Your task to perform on an android device: set the timer Image 0: 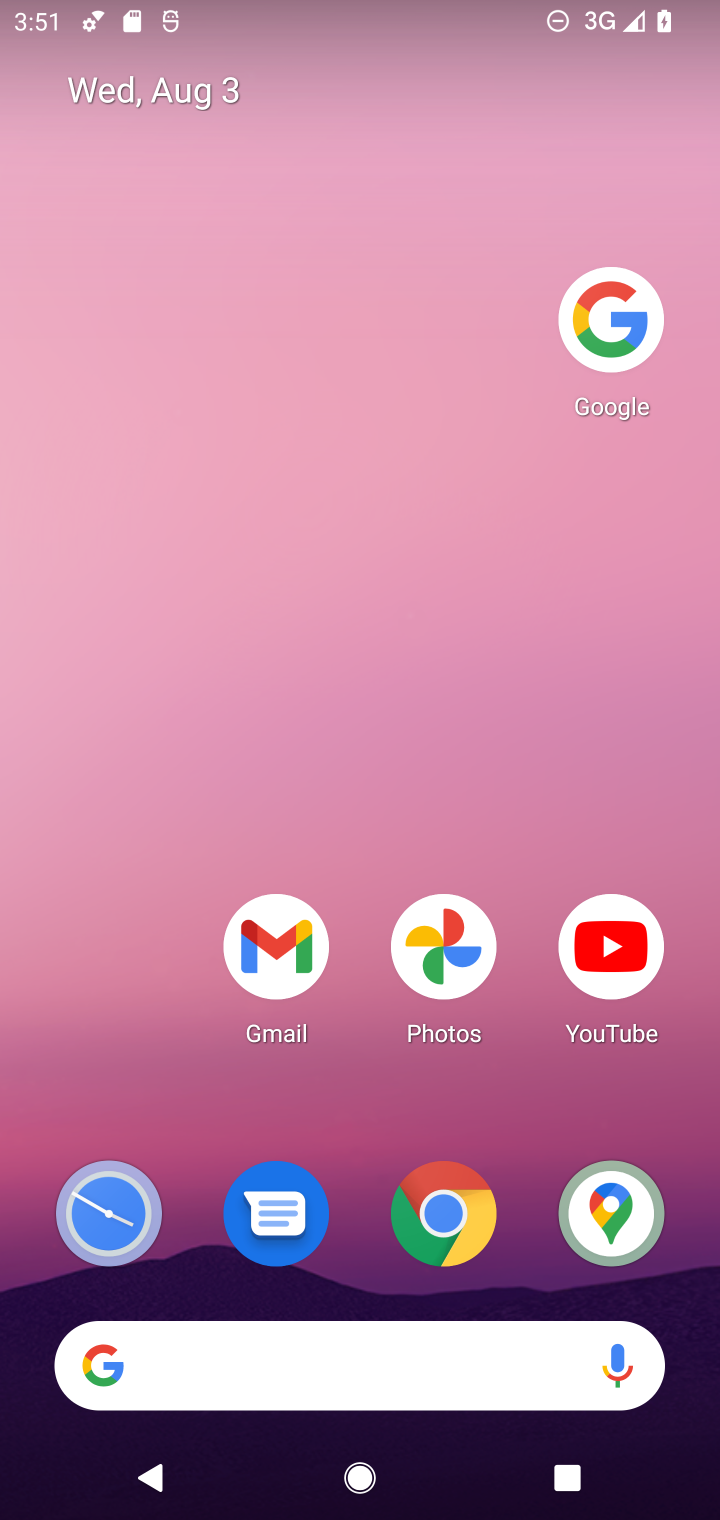
Step 0: click (118, 1220)
Your task to perform on an android device: set the timer Image 1: 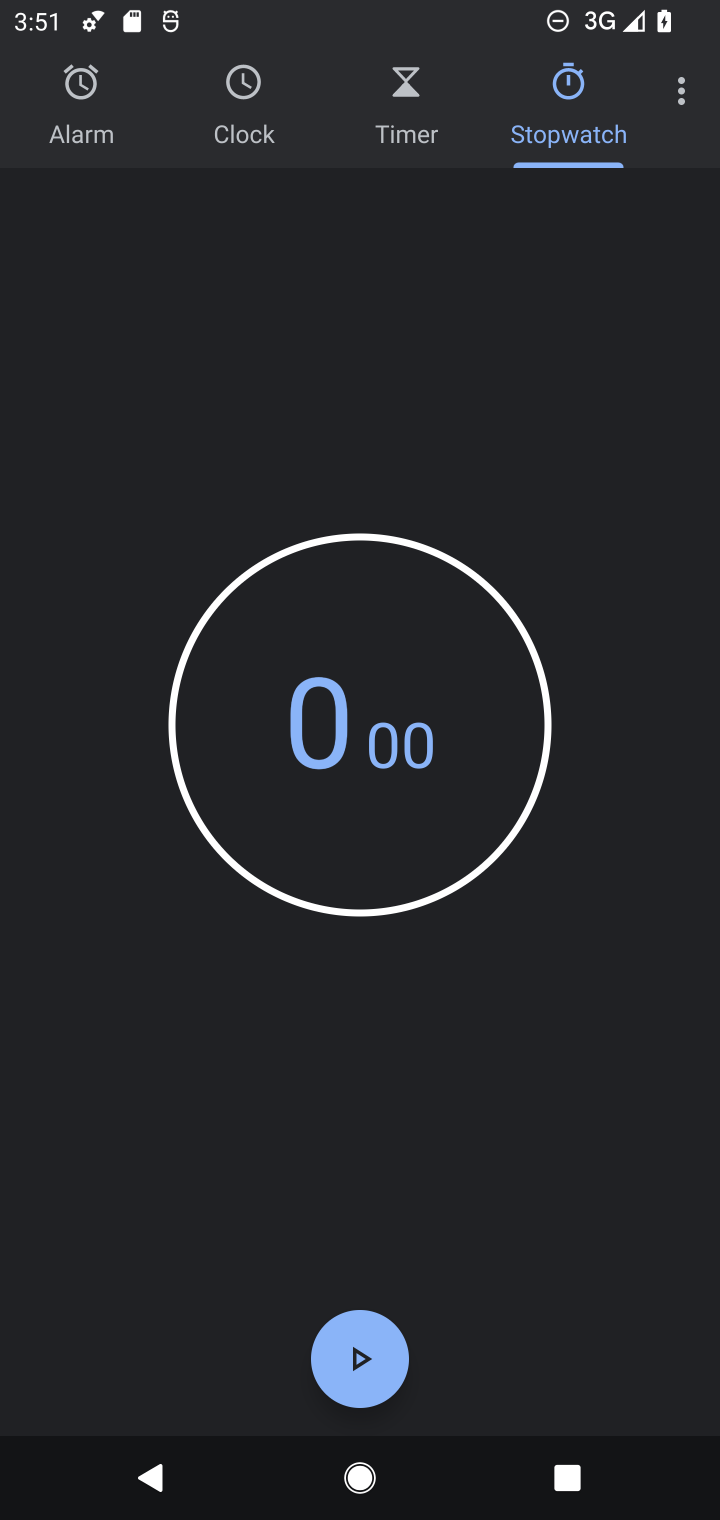
Step 1: click (387, 124)
Your task to perform on an android device: set the timer Image 2: 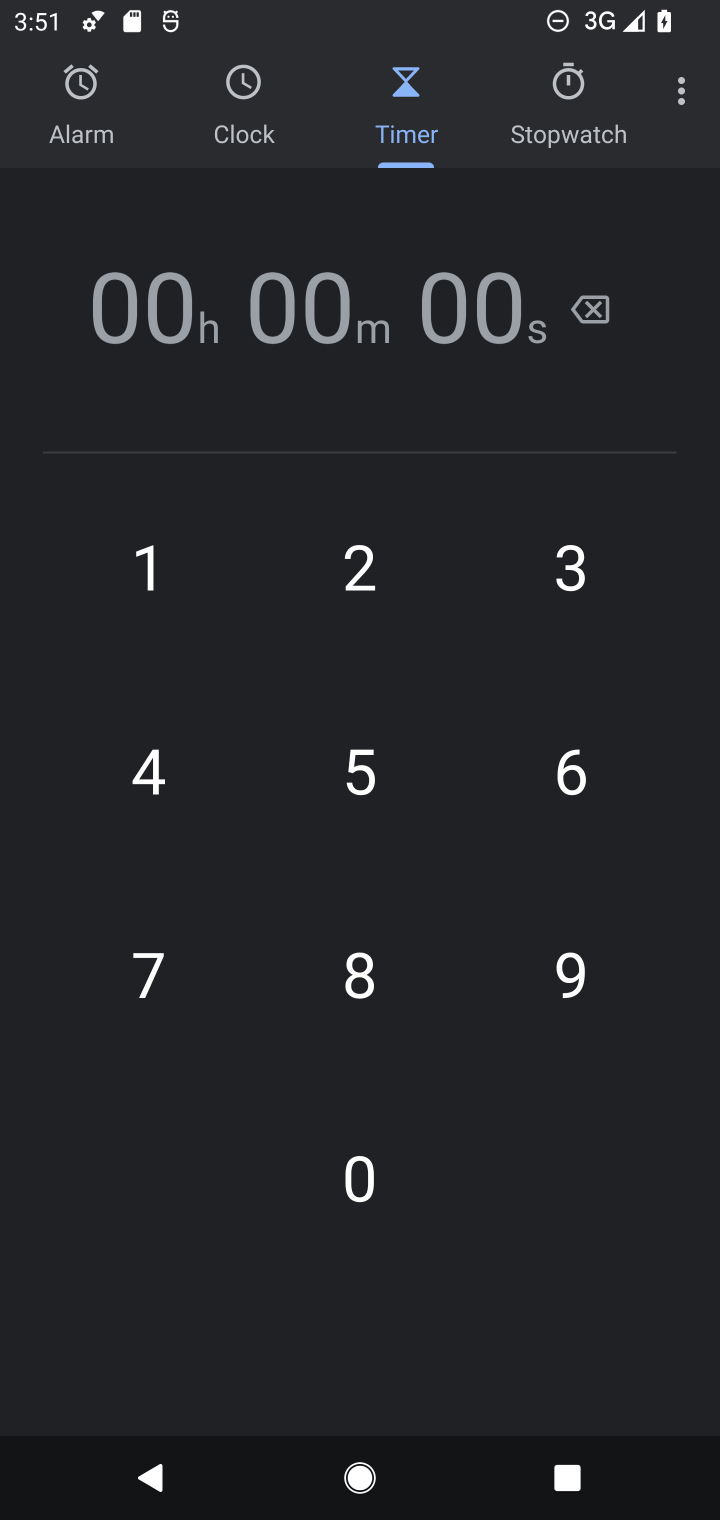
Step 2: click (180, 290)
Your task to perform on an android device: set the timer Image 3: 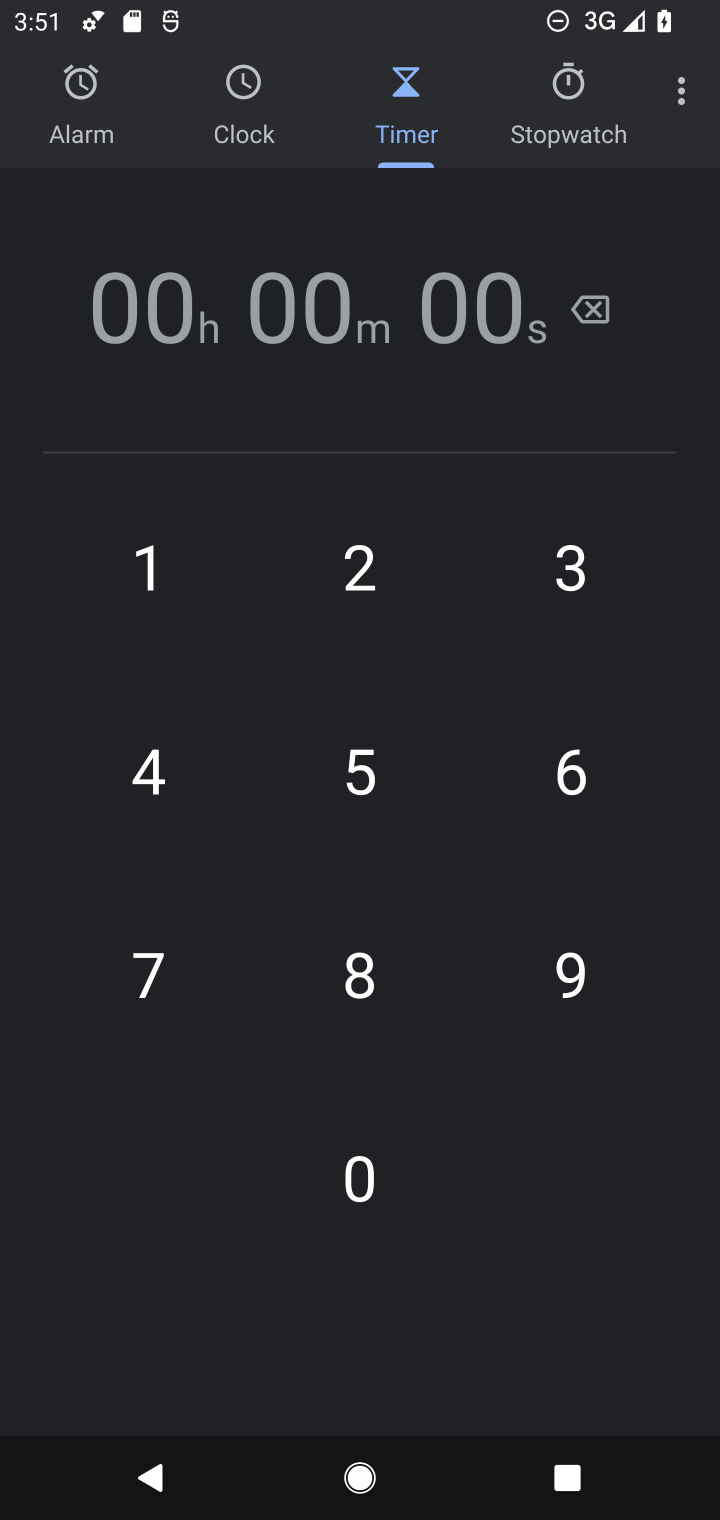
Step 3: type "65656565656 "
Your task to perform on an android device: set the timer Image 4: 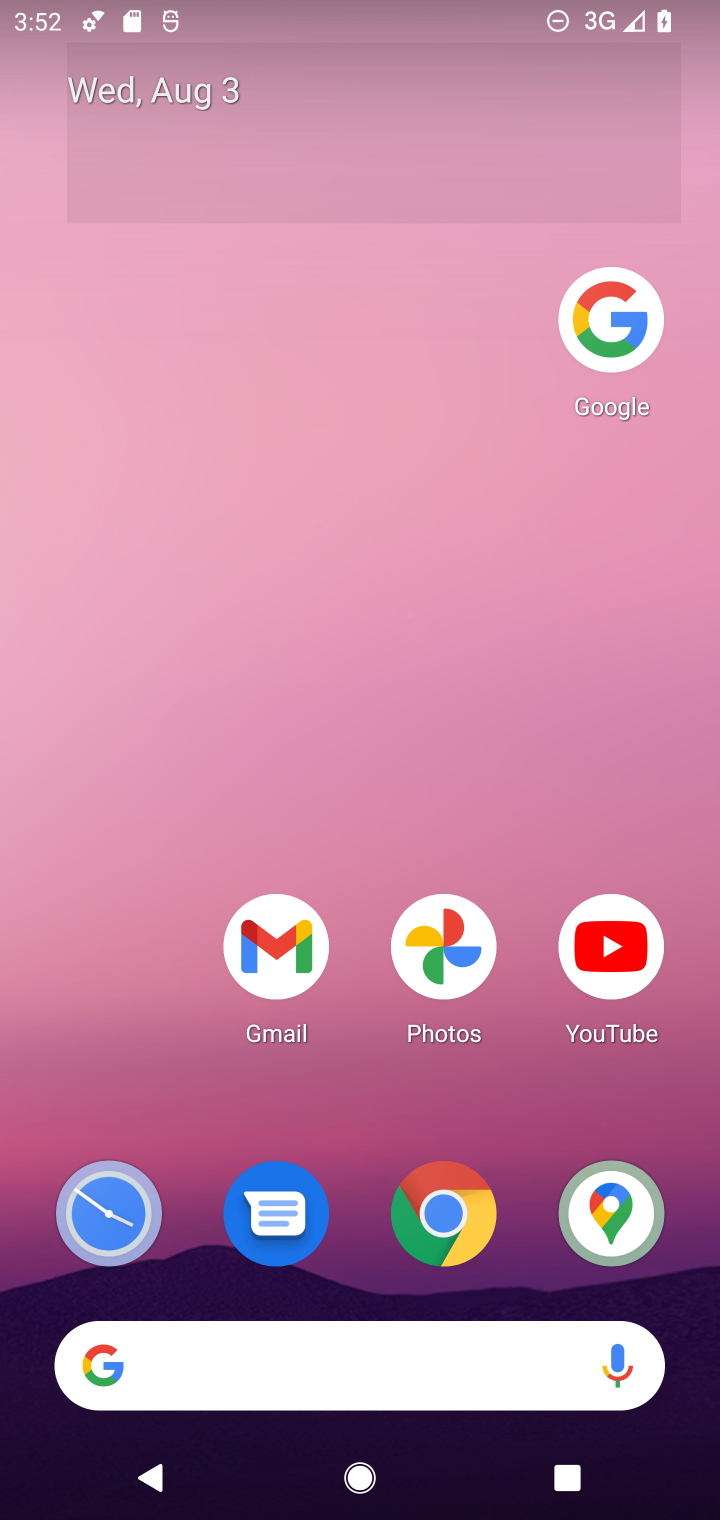
Step 4: drag from (303, 1143) to (313, 239)
Your task to perform on an android device: set the timer Image 5: 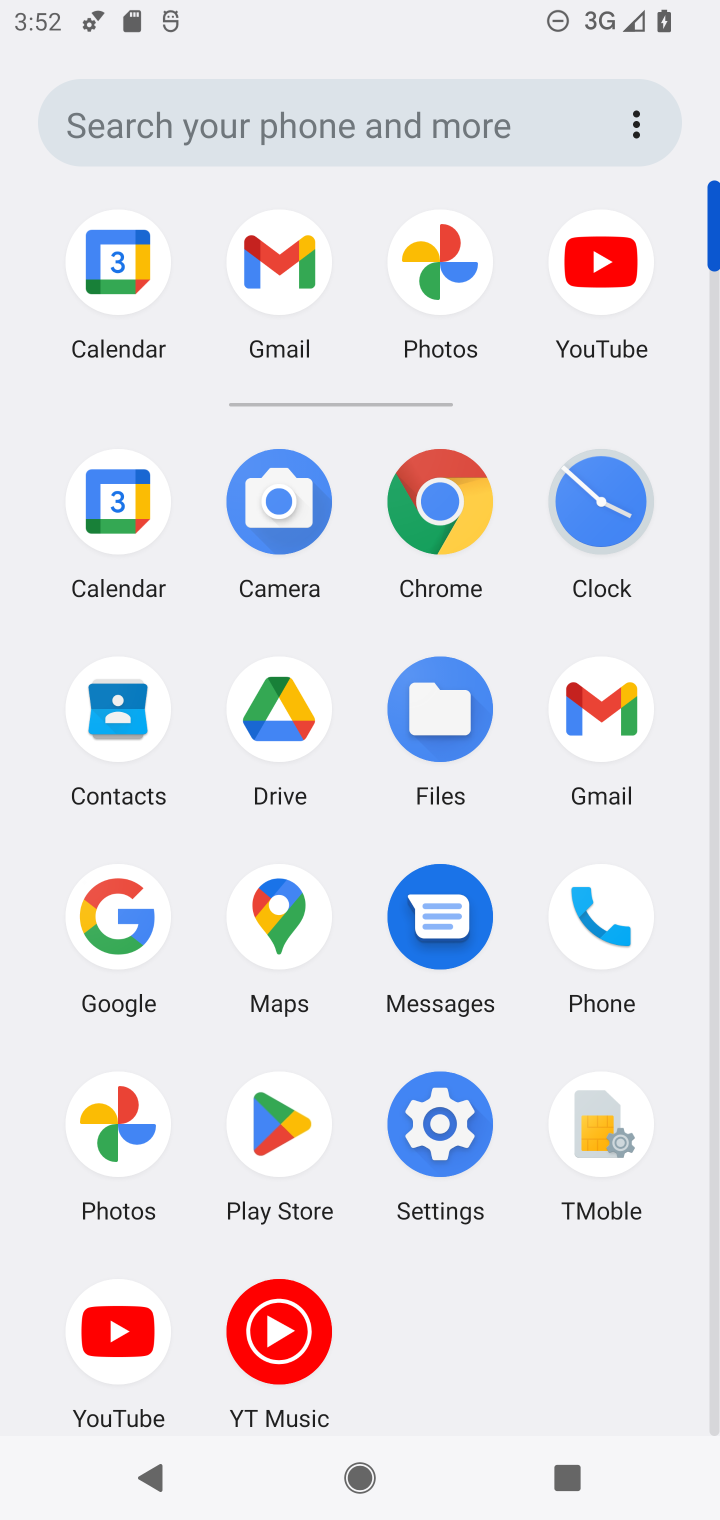
Step 5: click (579, 511)
Your task to perform on an android device: set the timer Image 6: 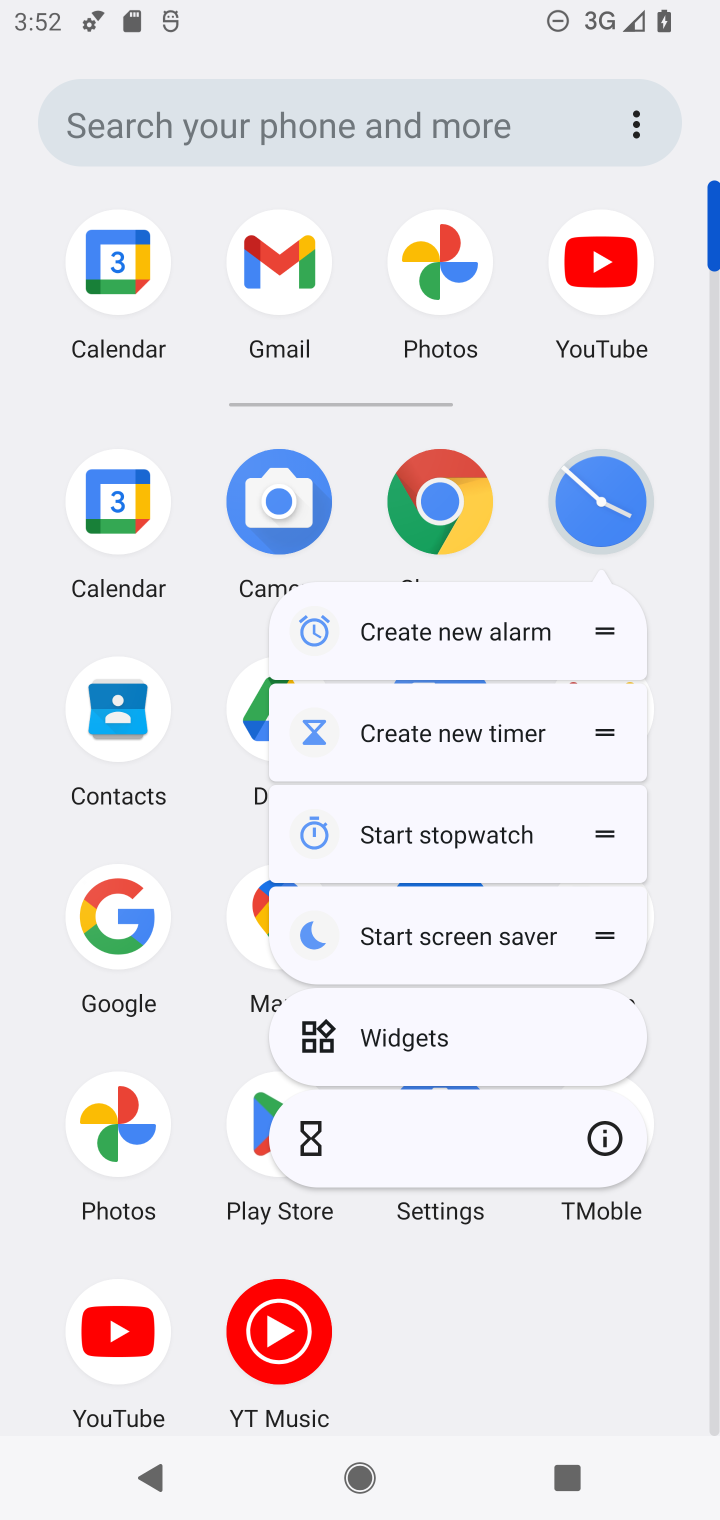
Step 6: click (617, 490)
Your task to perform on an android device: set the timer Image 7: 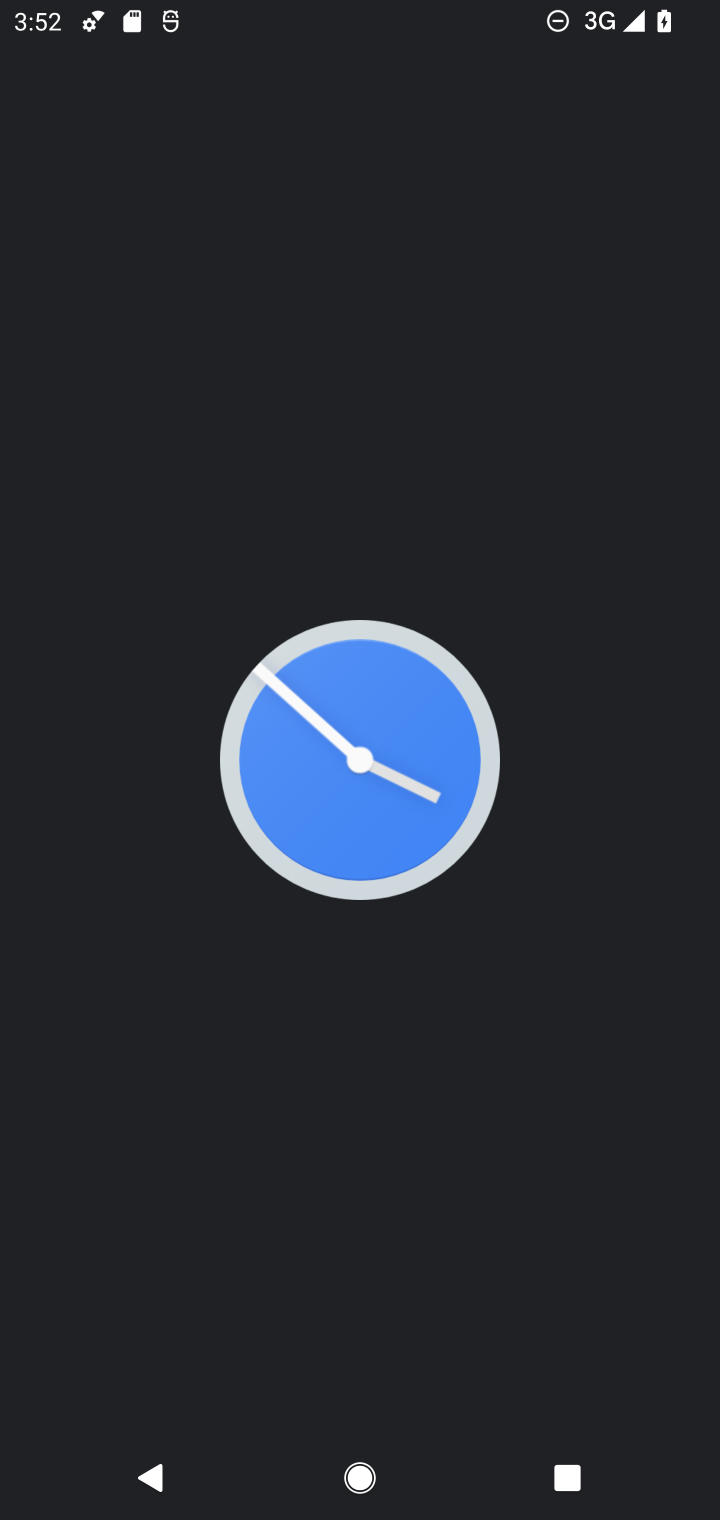
Step 7: task complete